Your task to perform on an android device: uninstall "Paramount+ | Peak Streaming" Image 0: 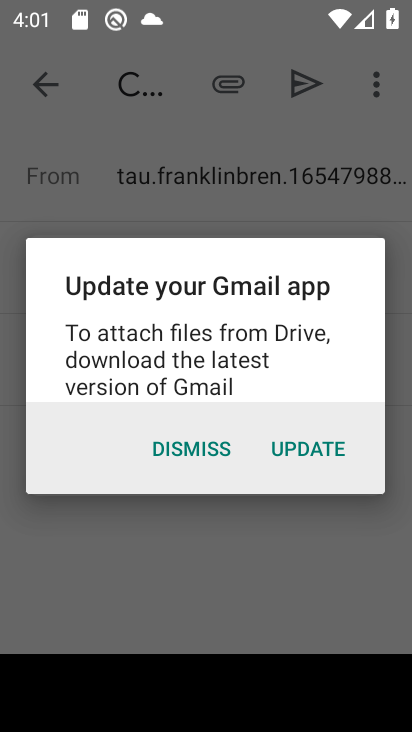
Step 0: press home button
Your task to perform on an android device: uninstall "Paramount+ | Peak Streaming" Image 1: 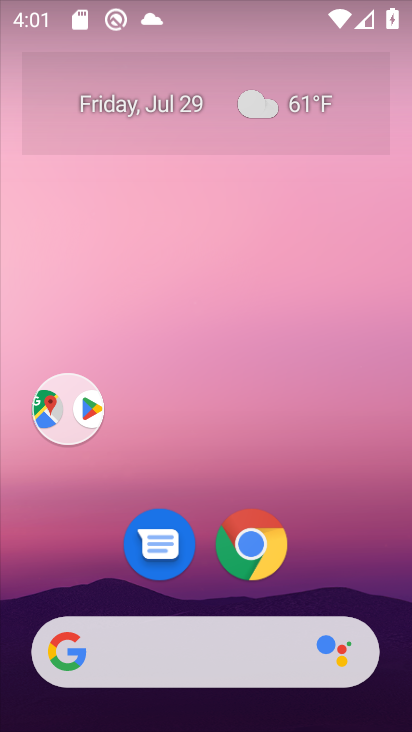
Step 1: drag from (216, 724) to (215, 160)
Your task to perform on an android device: uninstall "Paramount+ | Peak Streaming" Image 2: 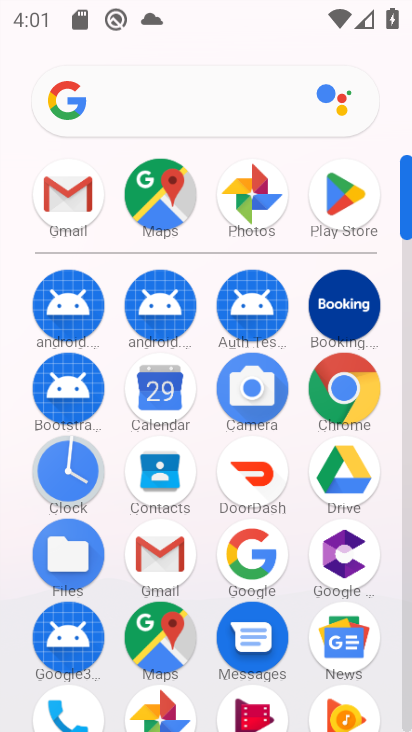
Step 2: click (351, 196)
Your task to perform on an android device: uninstall "Paramount+ | Peak Streaming" Image 3: 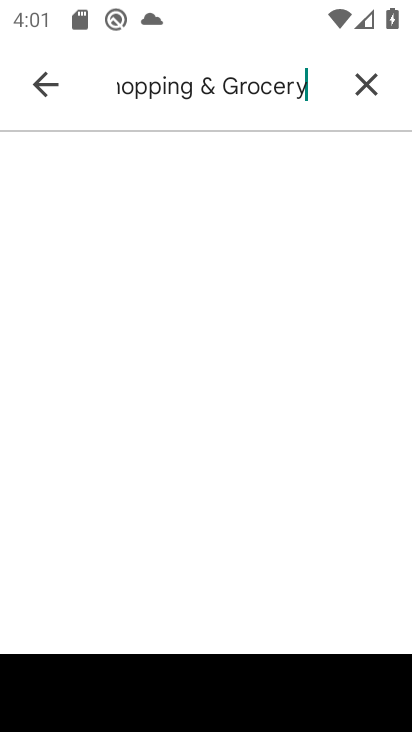
Step 3: click (355, 82)
Your task to perform on an android device: uninstall "Paramount+ | Peak Streaming" Image 4: 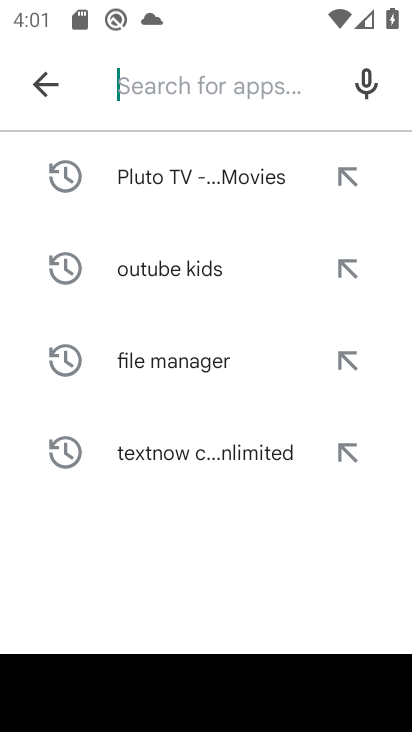
Step 4: type "Walmart Shopping & Grocery"
Your task to perform on an android device: uninstall "Paramount+ | Peak Streaming" Image 5: 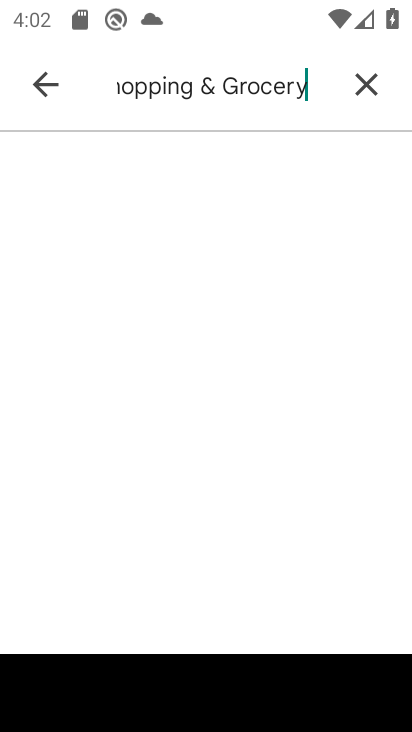
Step 5: task complete